Your task to perform on an android device: turn off wifi Image 0: 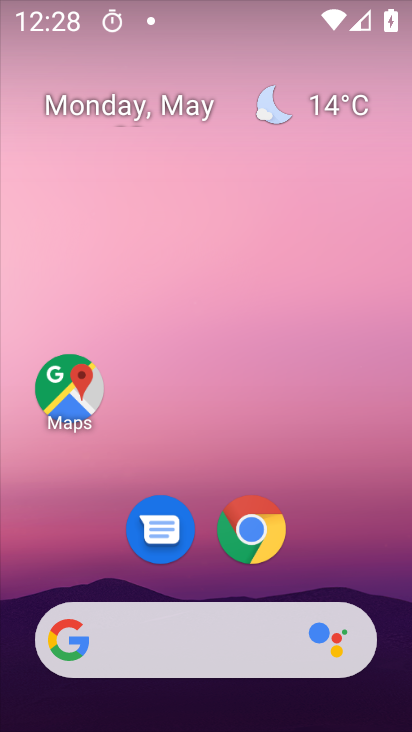
Step 0: drag from (343, 555) to (352, 160)
Your task to perform on an android device: turn off wifi Image 1: 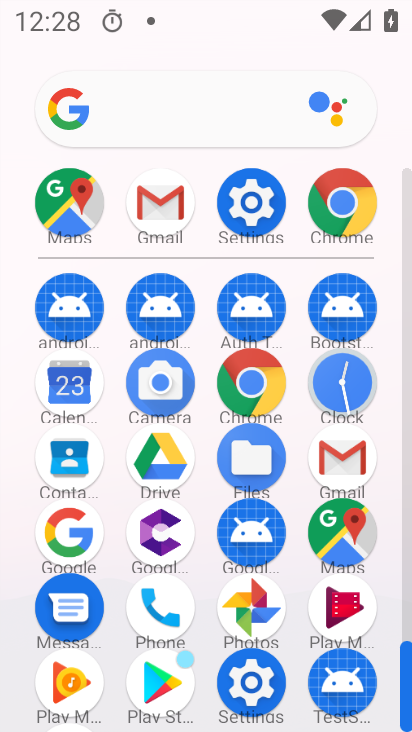
Step 1: click (266, 230)
Your task to perform on an android device: turn off wifi Image 2: 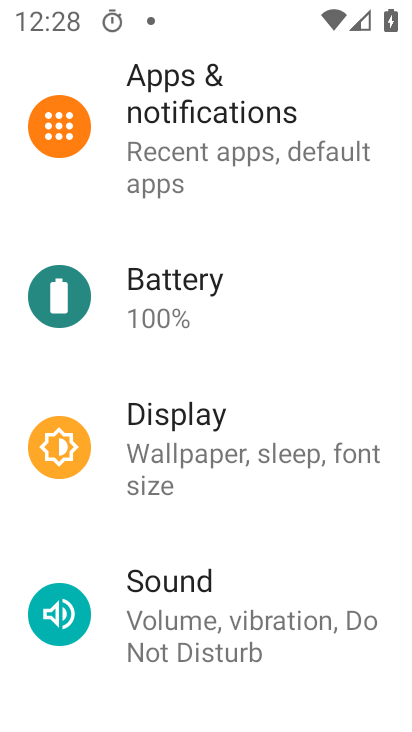
Step 2: drag from (291, 243) to (320, 454)
Your task to perform on an android device: turn off wifi Image 3: 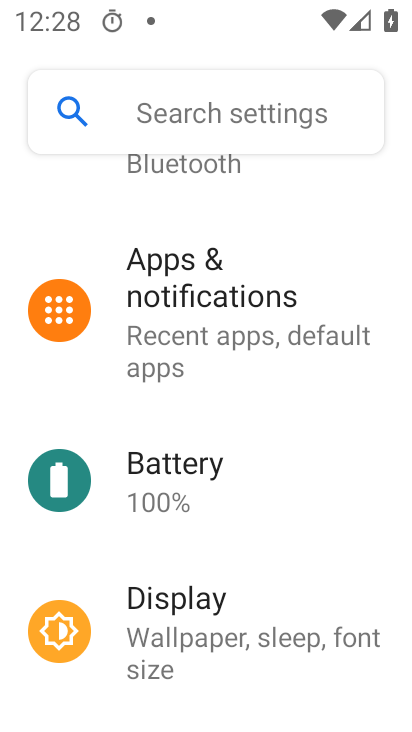
Step 3: drag from (371, 239) to (359, 390)
Your task to perform on an android device: turn off wifi Image 4: 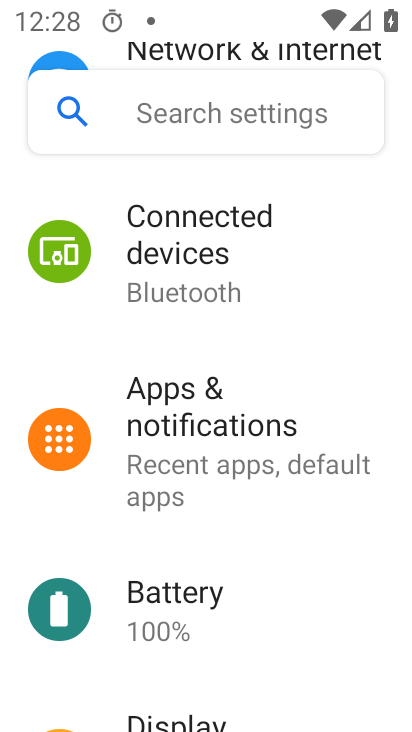
Step 4: drag from (347, 238) to (353, 388)
Your task to perform on an android device: turn off wifi Image 5: 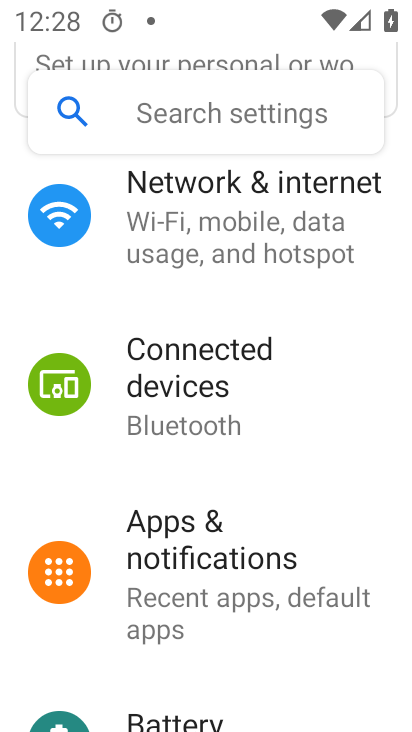
Step 5: drag from (360, 225) to (372, 426)
Your task to perform on an android device: turn off wifi Image 6: 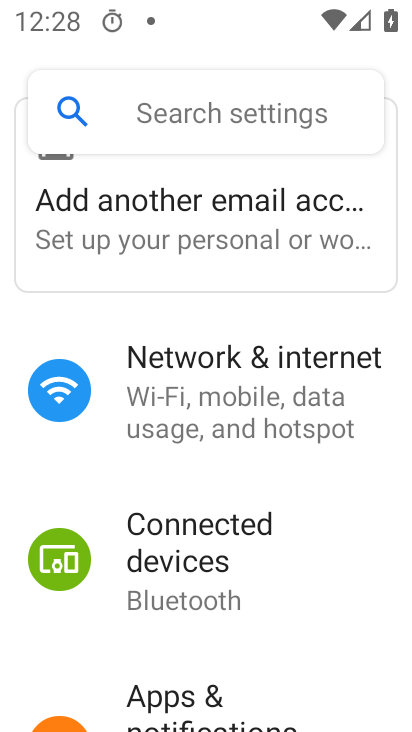
Step 6: drag from (372, 426) to (351, 249)
Your task to perform on an android device: turn off wifi Image 7: 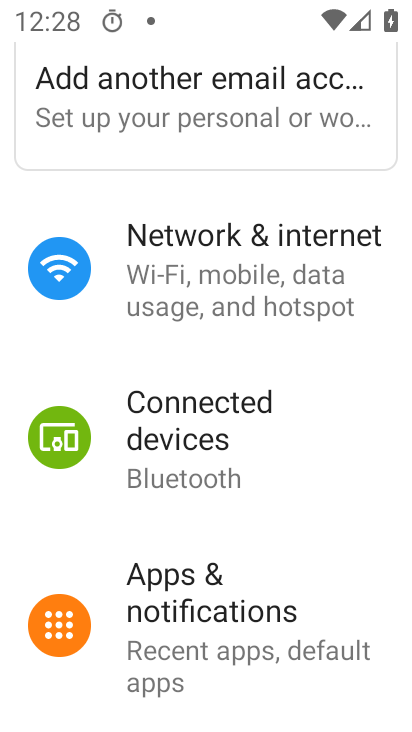
Step 7: drag from (364, 425) to (347, 276)
Your task to perform on an android device: turn off wifi Image 8: 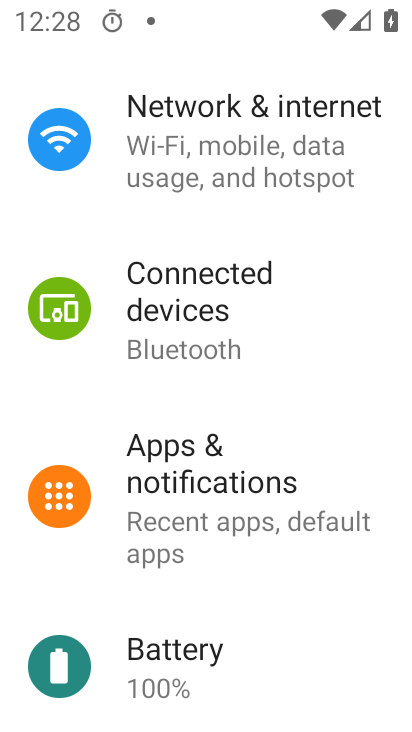
Step 8: drag from (359, 471) to (357, 318)
Your task to perform on an android device: turn off wifi Image 9: 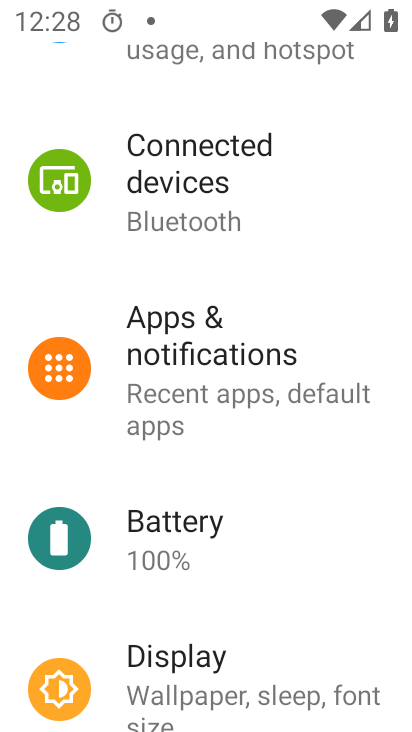
Step 9: drag from (353, 509) to (354, 374)
Your task to perform on an android device: turn off wifi Image 10: 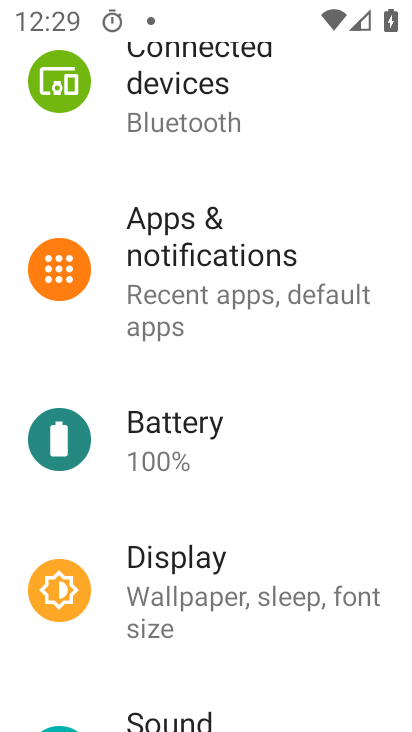
Step 10: drag from (358, 520) to (354, 363)
Your task to perform on an android device: turn off wifi Image 11: 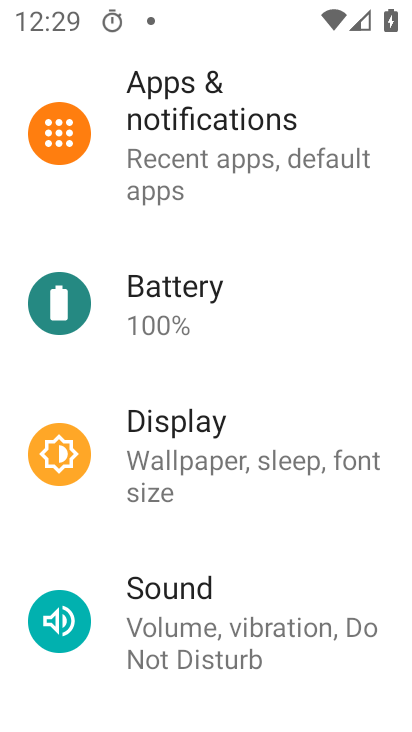
Step 11: drag from (355, 577) to (354, 454)
Your task to perform on an android device: turn off wifi Image 12: 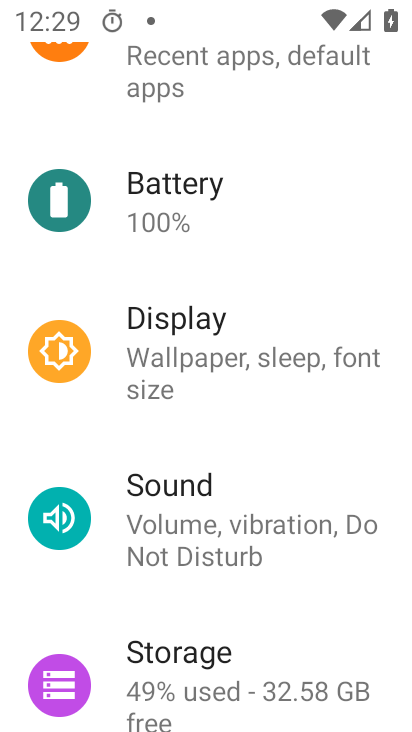
Step 12: drag from (354, 600) to (356, 453)
Your task to perform on an android device: turn off wifi Image 13: 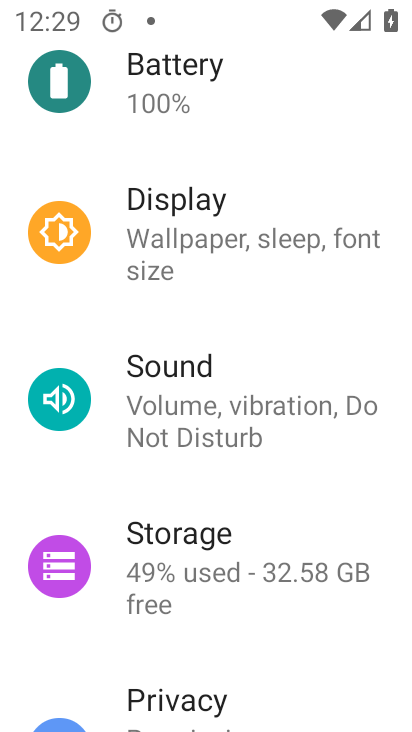
Step 13: drag from (352, 607) to (351, 508)
Your task to perform on an android device: turn off wifi Image 14: 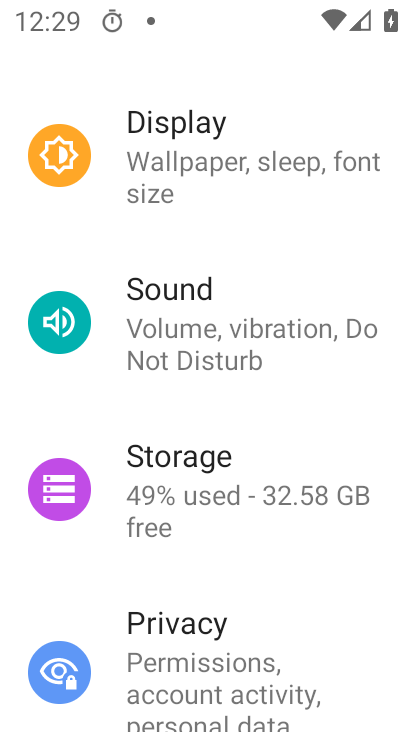
Step 14: drag from (370, 55) to (388, 166)
Your task to perform on an android device: turn off wifi Image 15: 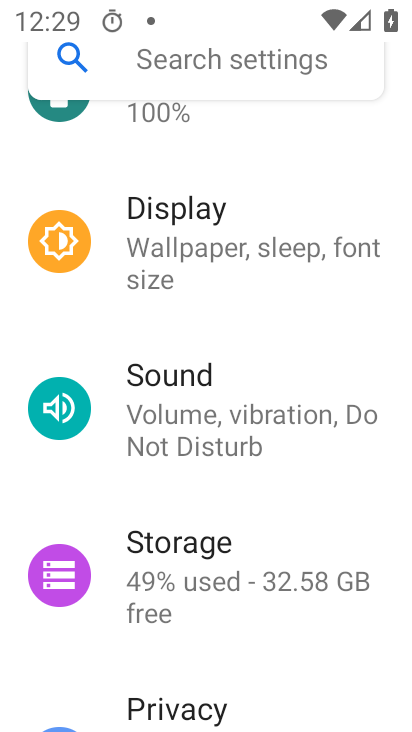
Step 15: drag from (359, 136) to (349, 212)
Your task to perform on an android device: turn off wifi Image 16: 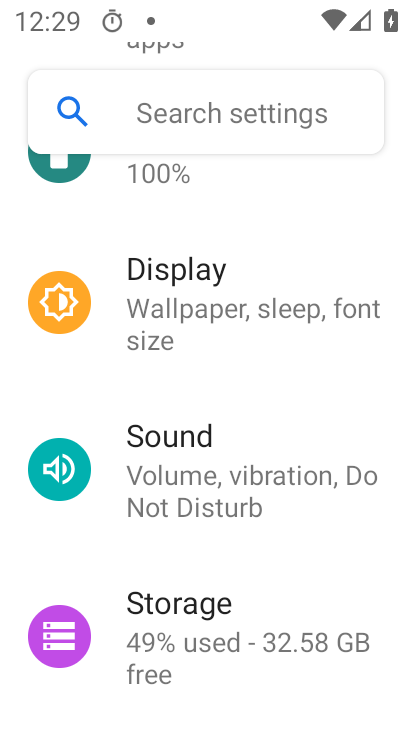
Step 16: drag from (349, 178) to (365, 345)
Your task to perform on an android device: turn off wifi Image 17: 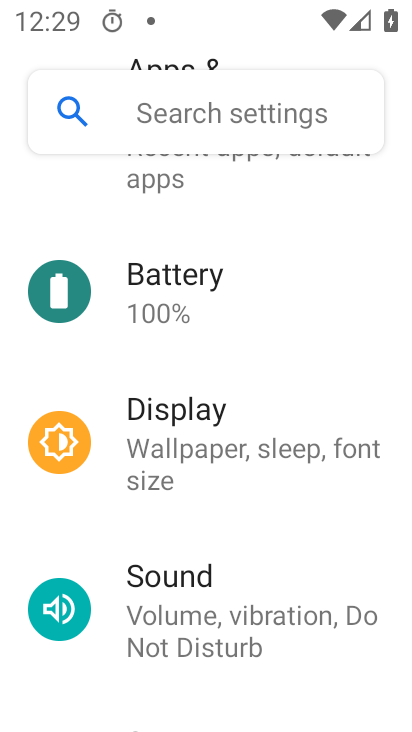
Step 17: drag from (365, 261) to (369, 357)
Your task to perform on an android device: turn off wifi Image 18: 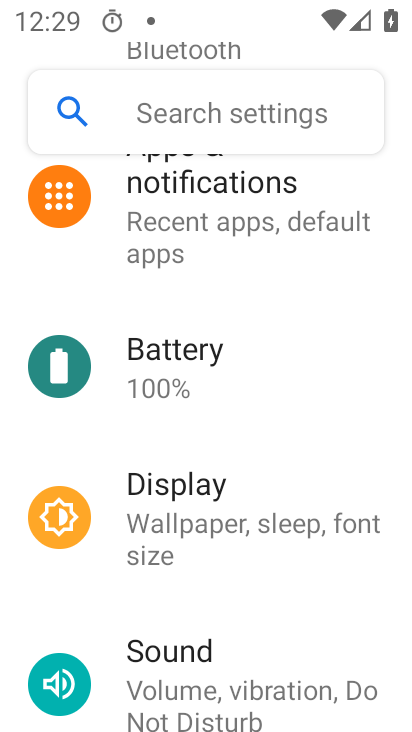
Step 18: drag from (386, 194) to (380, 316)
Your task to perform on an android device: turn off wifi Image 19: 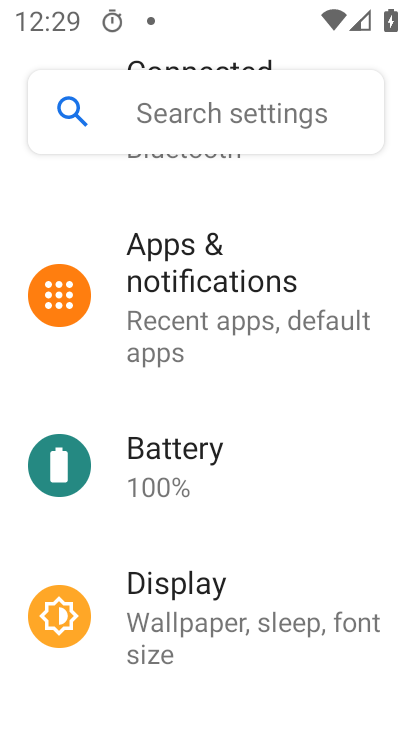
Step 19: drag from (362, 189) to (370, 294)
Your task to perform on an android device: turn off wifi Image 20: 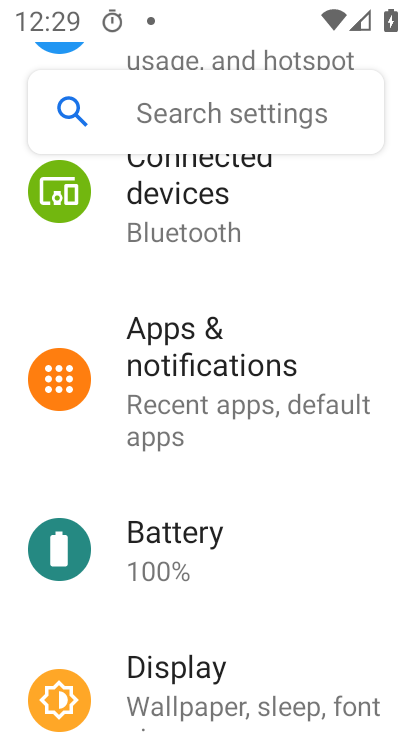
Step 20: drag from (369, 176) to (369, 279)
Your task to perform on an android device: turn off wifi Image 21: 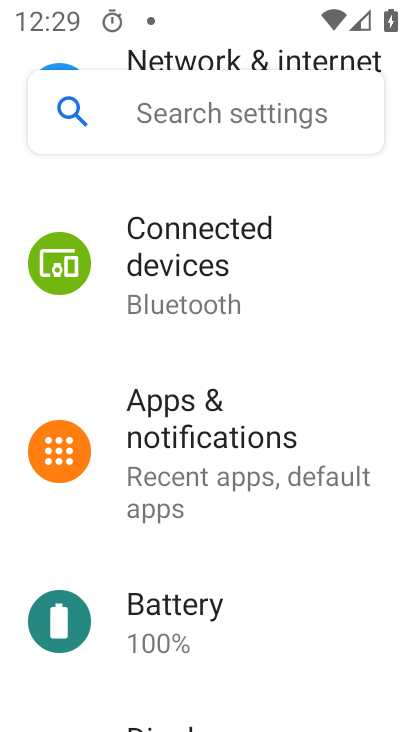
Step 21: drag from (363, 186) to (364, 284)
Your task to perform on an android device: turn off wifi Image 22: 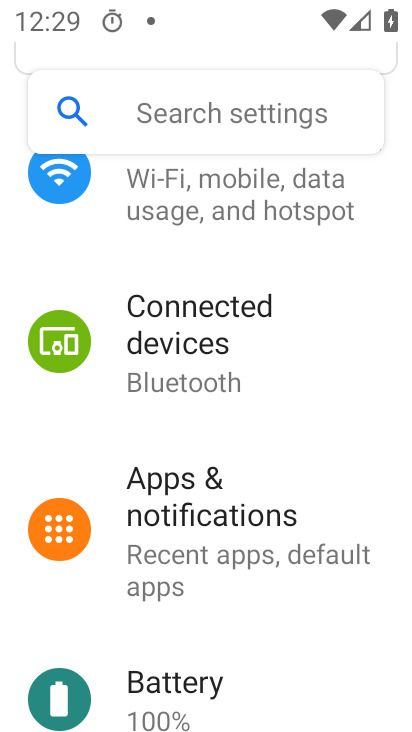
Step 22: drag from (364, 180) to (364, 283)
Your task to perform on an android device: turn off wifi Image 23: 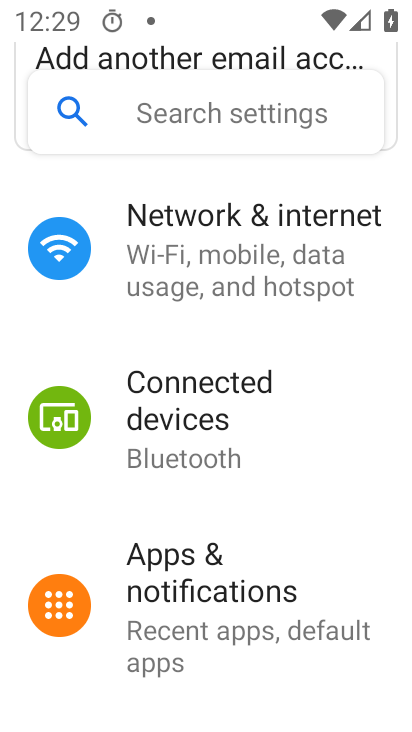
Step 23: click (317, 263)
Your task to perform on an android device: turn off wifi Image 24: 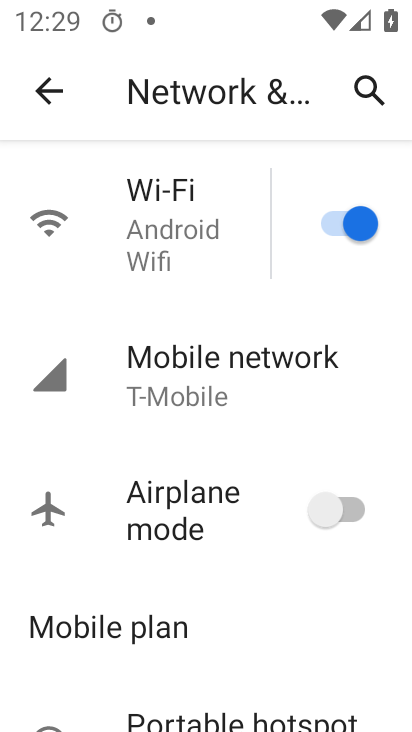
Step 24: click (340, 228)
Your task to perform on an android device: turn off wifi Image 25: 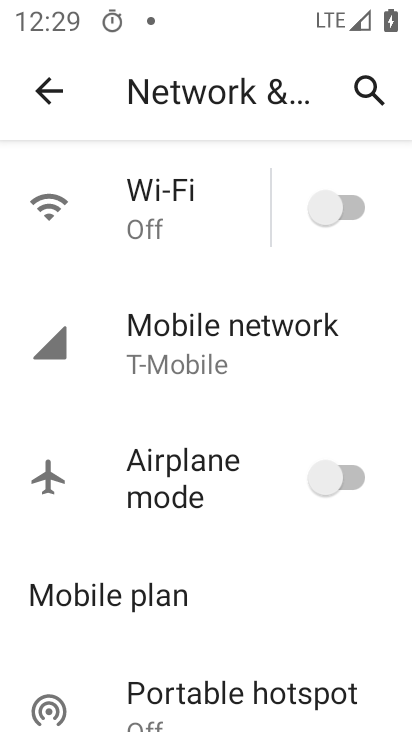
Step 25: task complete